Your task to perform on an android device: toggle pop-ups in chrome Image 0: 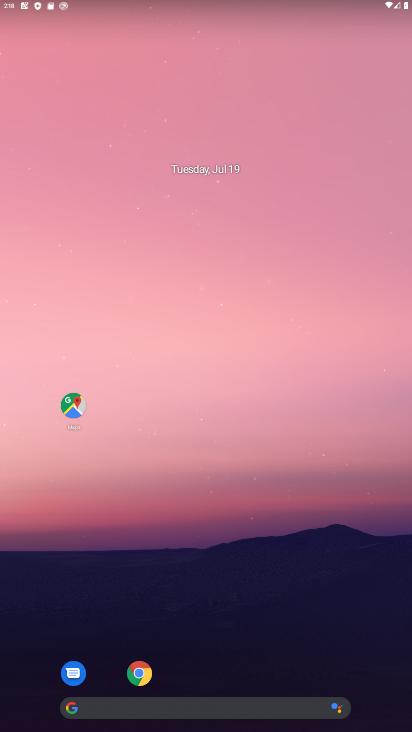
Step 0: click (140, 672)
Your task to perform on an android device: toggle pop-ups in chrome Image 1: 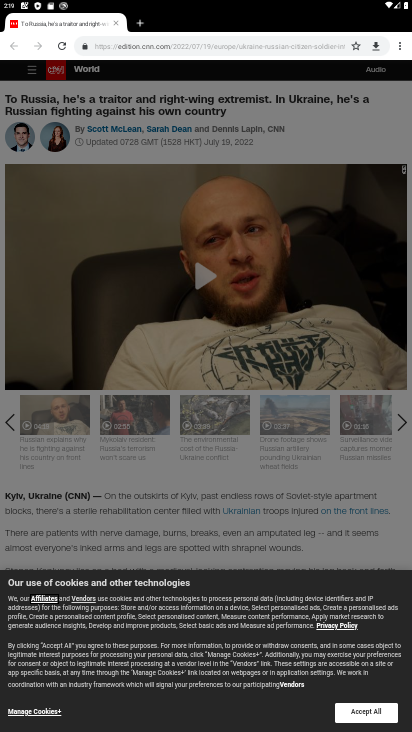
Step 1: click (400, 45)
Your task to perform on an android device: toggle pop-ups in chrome Image 2: 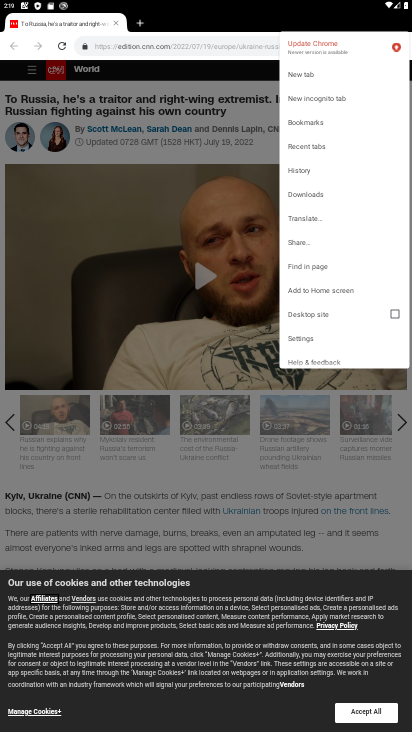
Step 2: click (306, 338)
Your task to perform on an android device: toggle pop-ups in chrome Image 3: 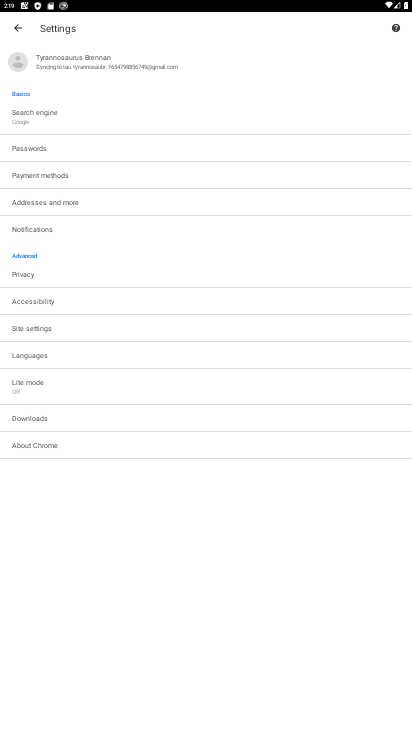
Step 3: click (41, 330)
Your task to perform on an android device: toggle pop-ups in chrome Image 4: 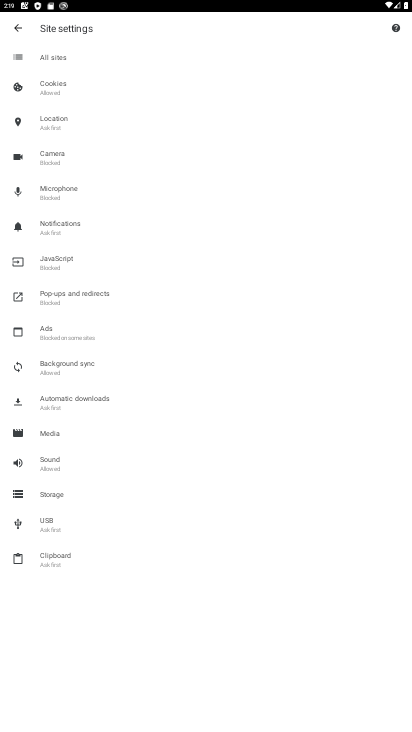
Step 4: click (85, 294)
Your task to perform on an android device: toggle pop-ups in chrome Image 5: 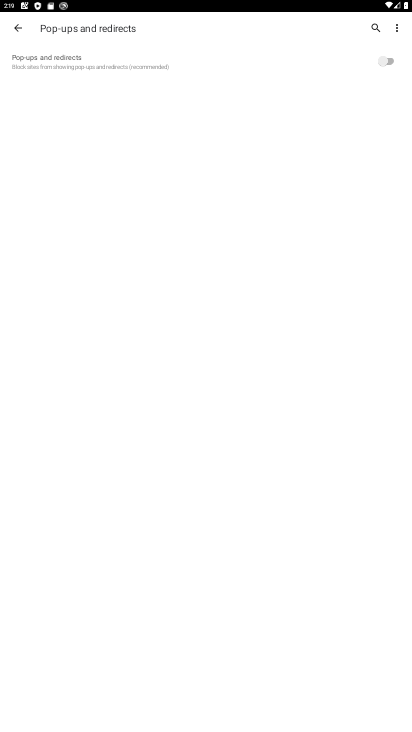
Step 5: click (383, 61)
Your task to perform on an android device: toggle pop-ups in chrome Image 6: 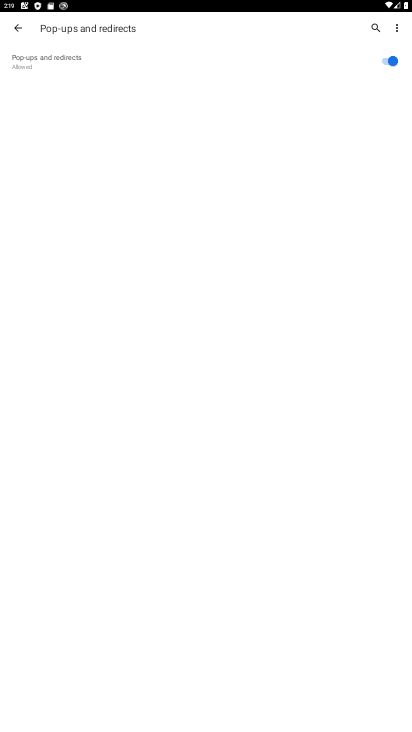
Step 6: task complete